Your task to perform on an android device: turn on improve location accuracy Image 0: 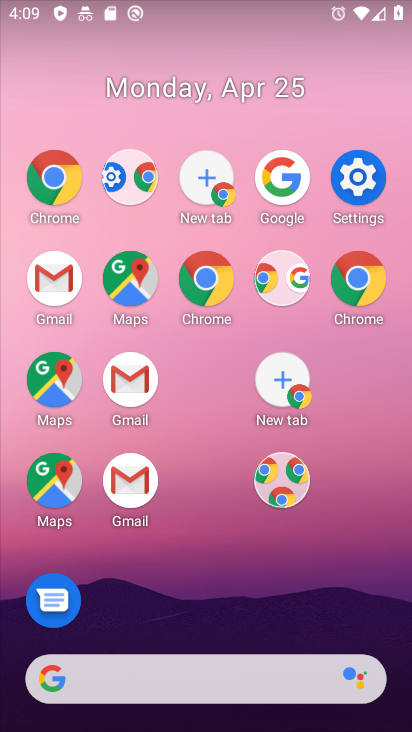
Step 0: drag from (250, 602) to (171, 111)
Your task to perform on an android device: turn on improve location accuracy Image 1: 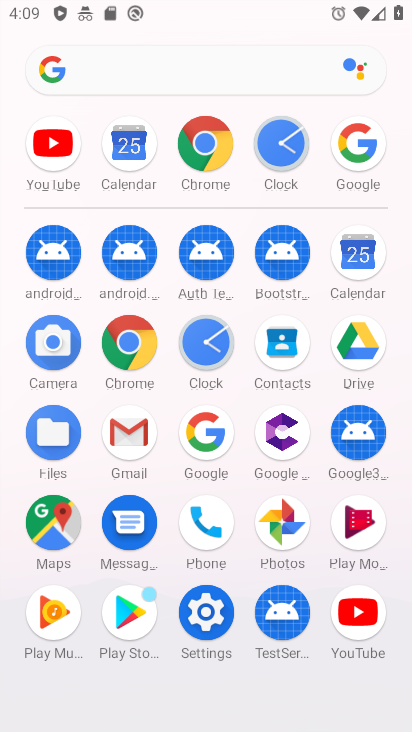
Step 1: click (215, 615)
Your task to perform on an android device: turn on improve location accuracy Image 2: 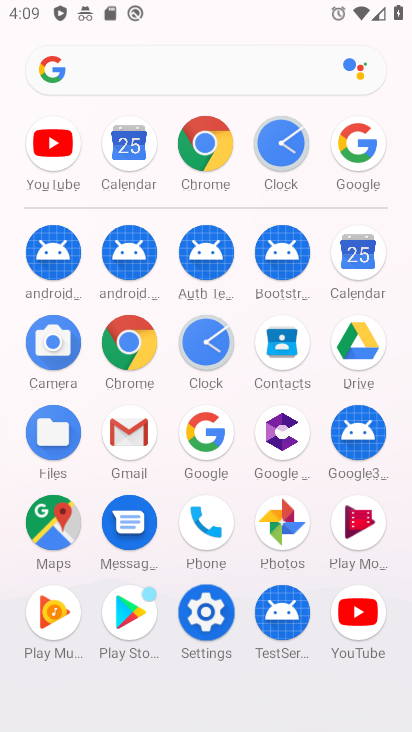
Step 2: click (215, 615)
Your task to perform on an android device: turn on improve location accuracy Image 3: 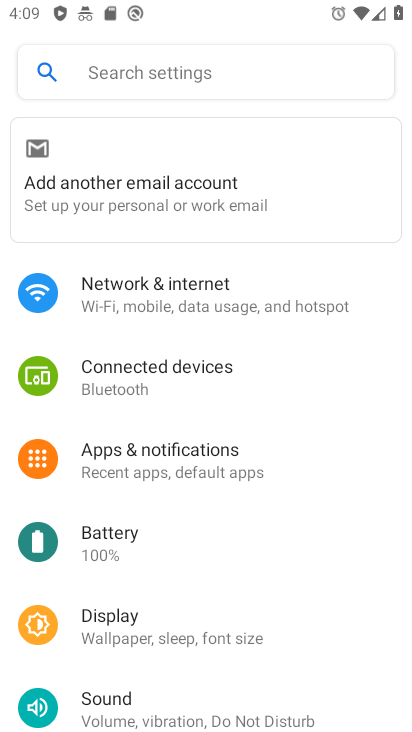
Step 3: drag from (160, 518) to (85, 90)
Your task to perform on an android device: turn on improve location accuracy Image 4: 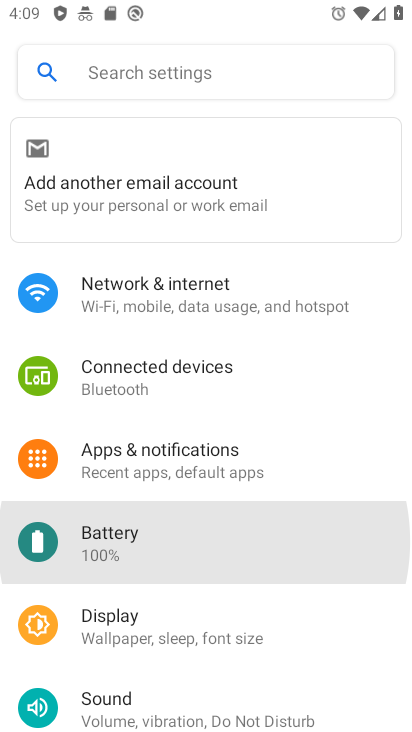
Step 4: drag from (197, 551) to (88, 171)
Your task to perform on an android device: turn on improve location accuracy Image 5: 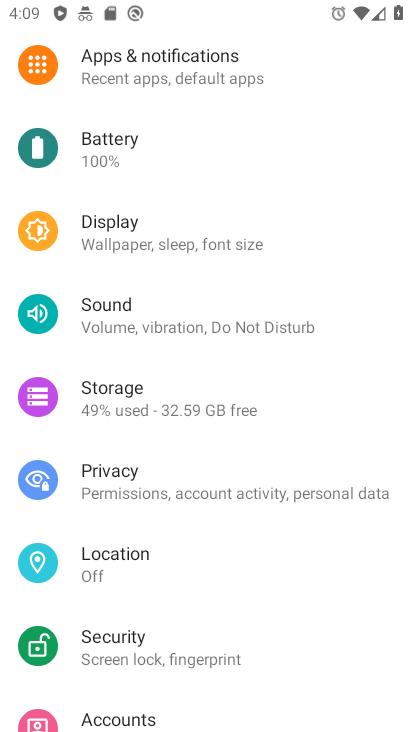
Step 5: drag from (171, 523) to (73, 62)
Your task to perform on an android device: turn on improve location accuracy Image 6: 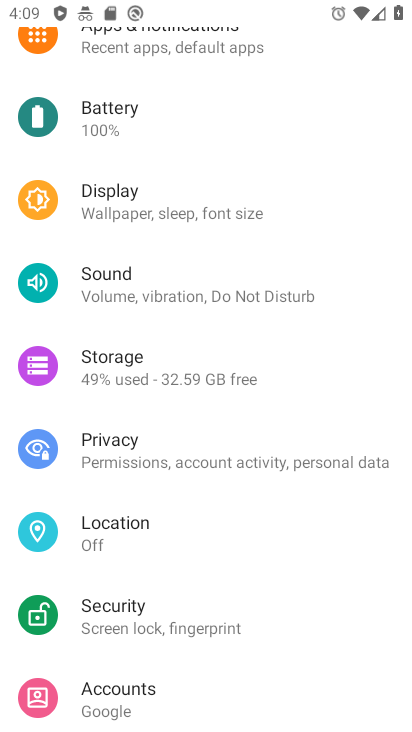
Step 6: click (107, 520)
Your task to perform on an android device: turn on improve location accuracy Image 7: 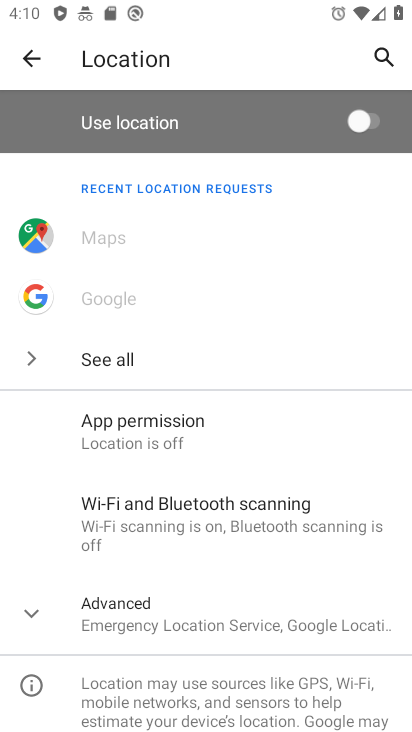
Step 7: click (114, 611)
Your task to perform on an android device: turn on improve location accuracy Image 8: 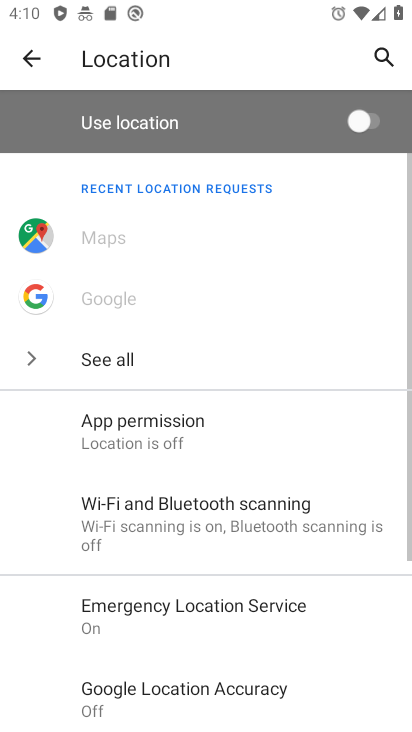
Step 8: drag from (171, 656) to (79, 309)
Your task to perform on an android device: turn on improve location accuracy Image 9: 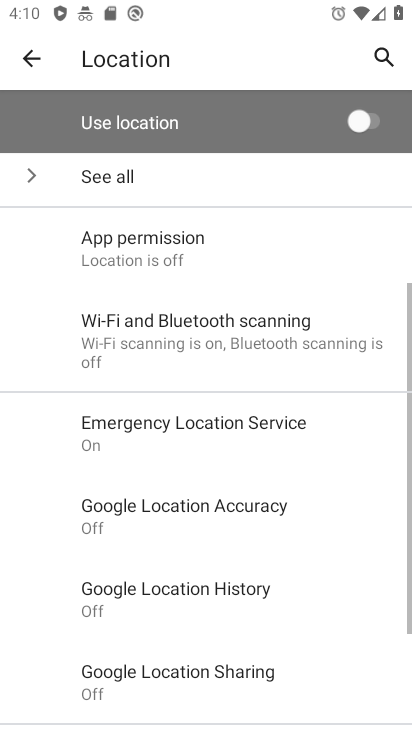
Step 9: drag from (228, 552) to (148, 121)
Your task to perform on an android device: turn on improve location accuracy Image 10: 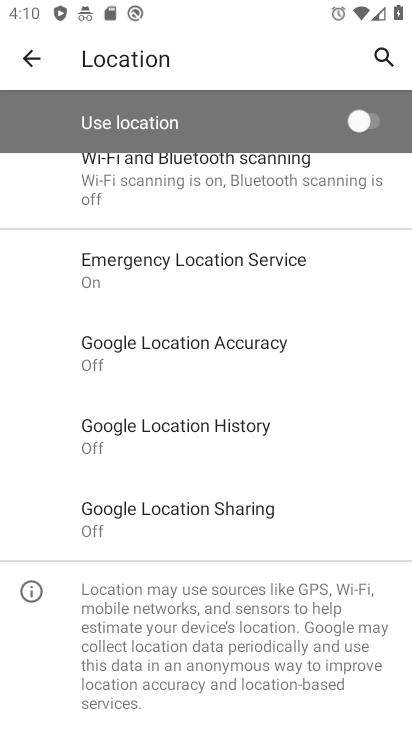
Step 10: click (161, 345)
Your task to perform on an android device: turn on improve location accuracy Image 11: 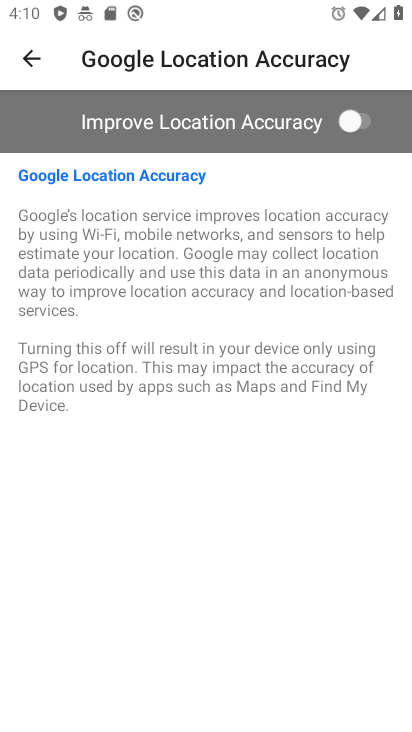
Step 11: click (351, 118)
Your task to perform on an android device: turn on improve location accuracy Image 12: 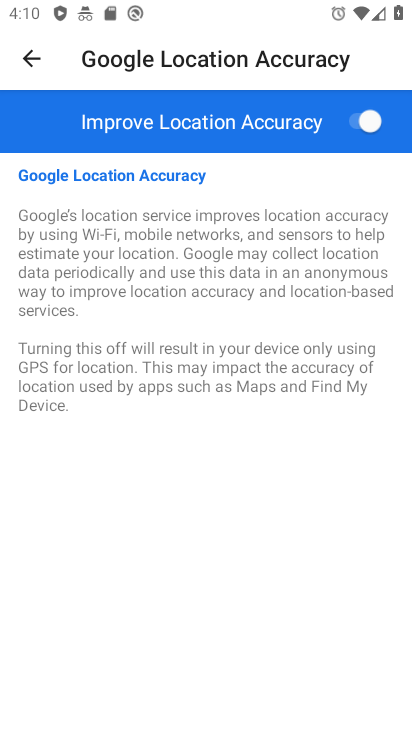
Step 12: task complete